Your task to perform on an android device: delete the emails in spam in the gmail app Image 0: 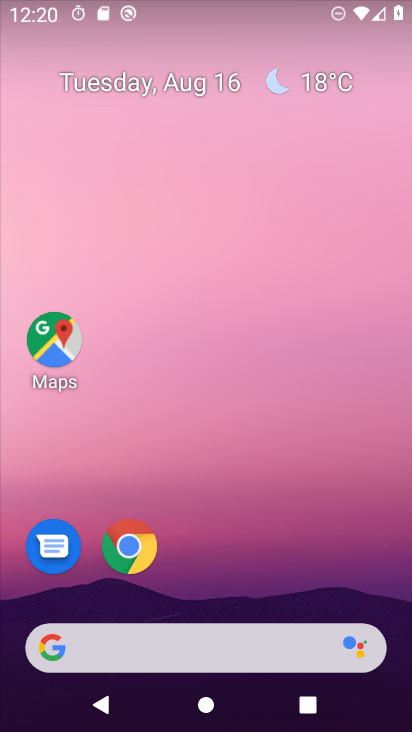
Step 0: drag from (254, 610) to (208, 100)
Your task to perform on an android device: delete the emails in spam in the gmail app Image 1: 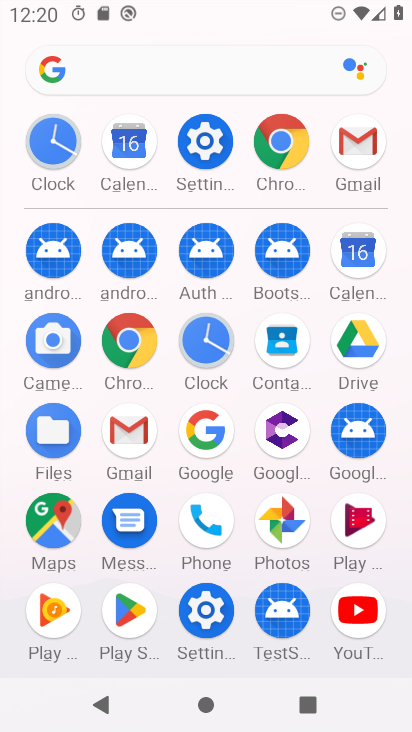
Step 1: click (132, 427)
Your task to perform on an android device: delete the emails in spam in the gmail app Image 2: 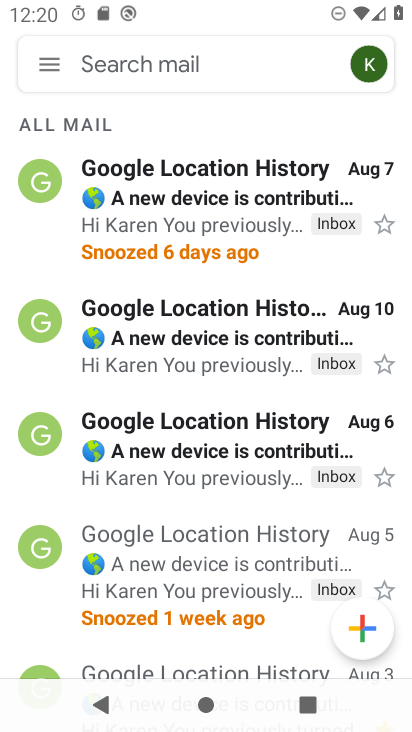
Step 2: click (50, 69)
Your task to perform on an android device: delete the emails in spam in the gmail app Image 3: 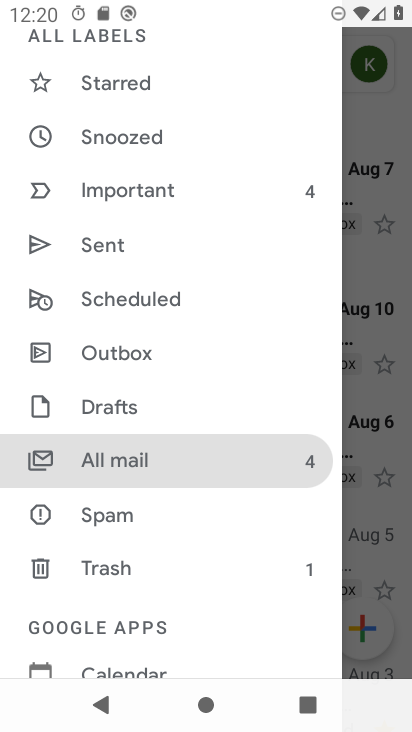
Step 3: click (107, 523)
Your task to perform on an android device: delete the emails in spam in the gmail app Image 4: 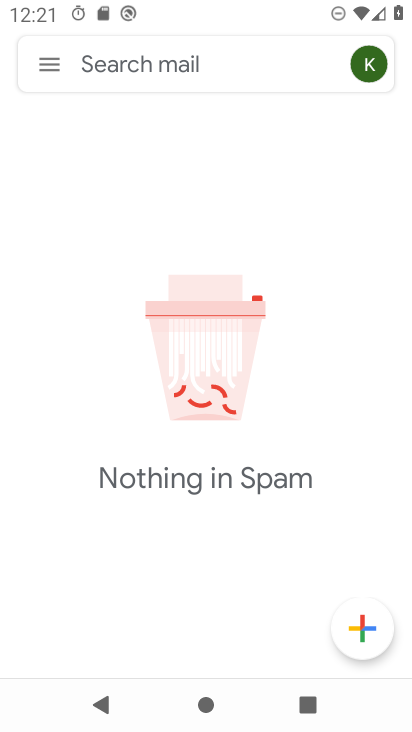
Step 4: task complete